Your task to perform on an android device: toggle pop-ups in chrome Image 0: 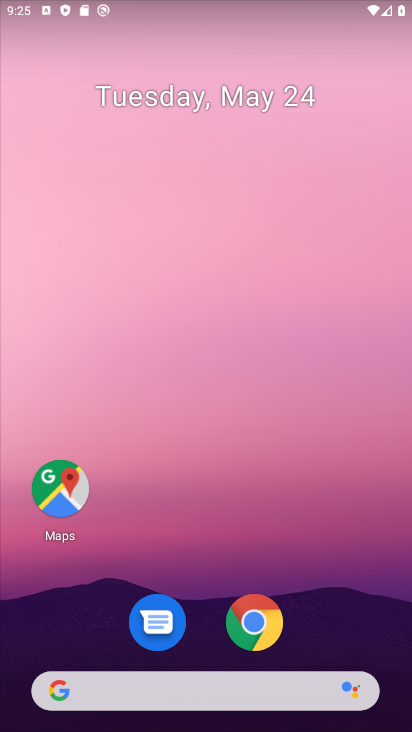
Step 0: click (295, 291)
Your task to perform on an android device: toggle pop-ups in chrome Image 1: 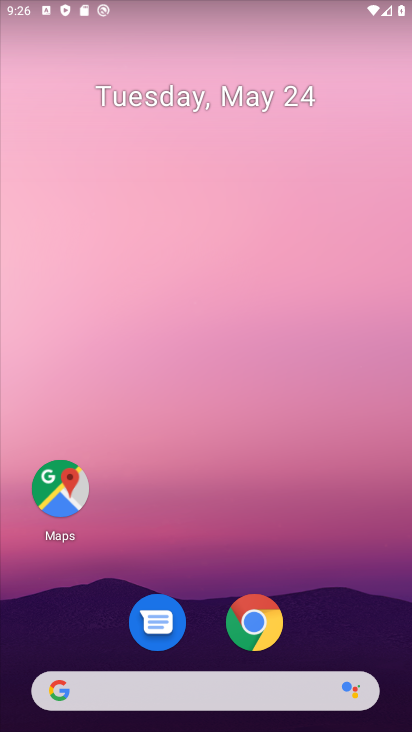
Step 1: drag from (253, 697) to (400, 151)
Your task to perform on an android device: toggle pop-ups in chrome Image 2: 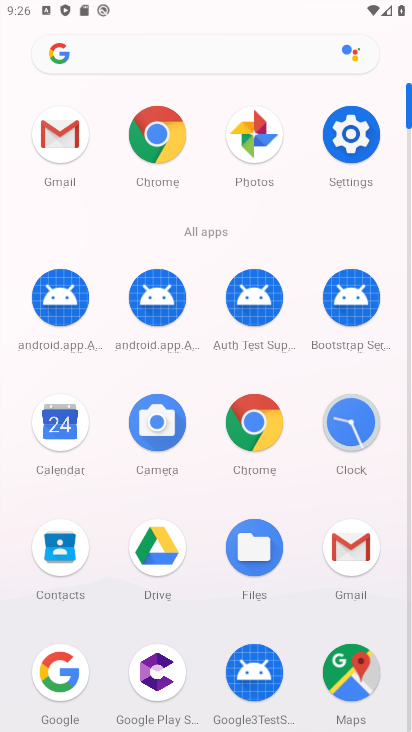
Step 2: click (176, 138)
Your task to perform on an android device: toggle pop-ups in chrome Image 3: 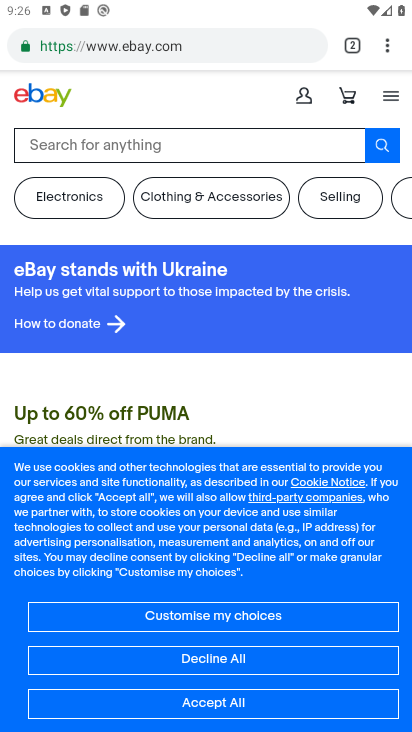
Step 3: click (379, 55)
Your task to perform on an android device: toggle pop-ups in chrome Image 4: 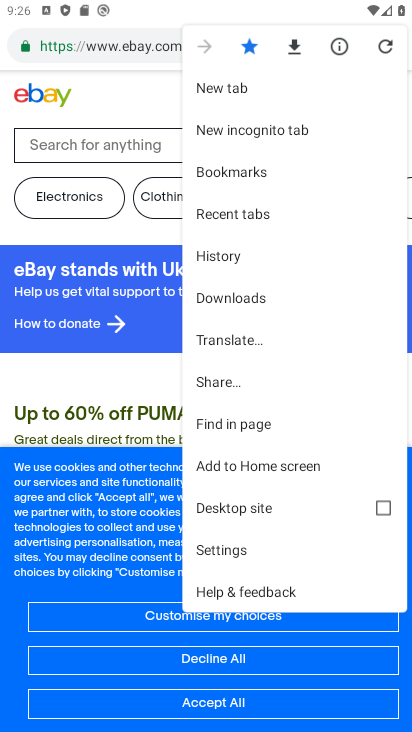
Step 4: click (245, 544)
Your task to perform on an android device: toggle pop-ups in chrome Image 5: 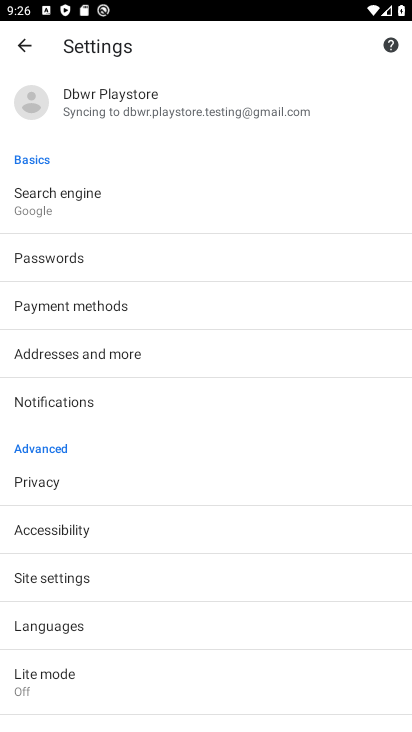
Step 5: click (68, 577)
Your task to perform on an android device: toggle pop-ups in chrome Image 6: 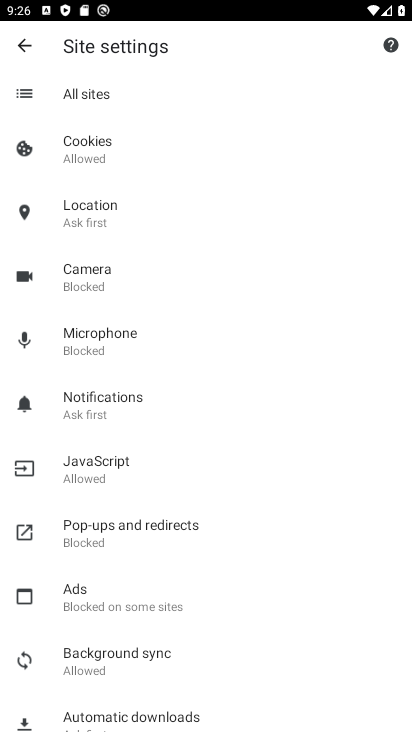
Step 6: click (105, 526)
Your task to perform on an android device: toggle pop-ups in chrome Image 7: 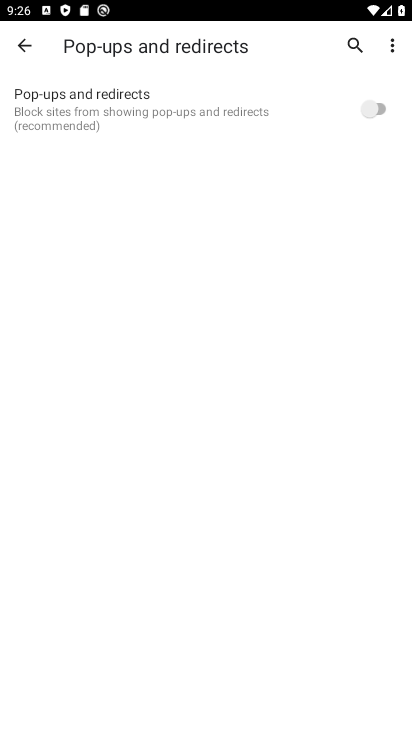
Step 7: task complete